Your task to perform on an android device: turn on notifications settings in the gmail app Image 0: 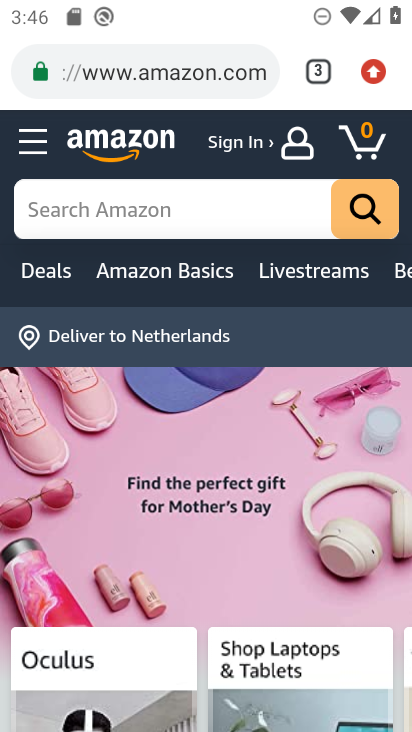
Step 0: press home button
Your task to perform on an android device: turn on notifications settings in the gmail app Image 1: 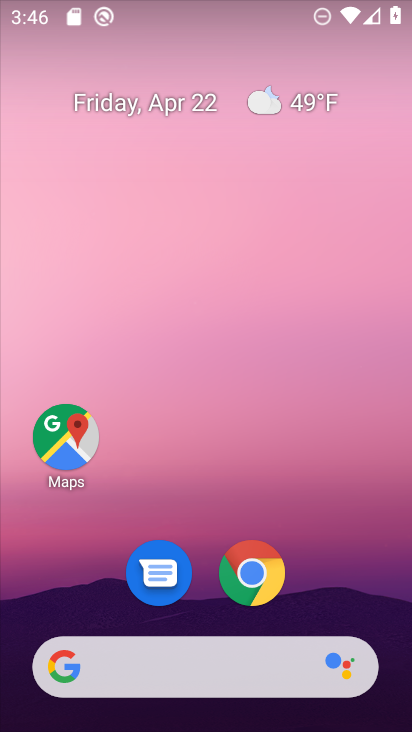
Step 1: drag from (331, 618) to (327, 126)
Your task to perform on an android device: turn on notifications settings in the gmail app Image 2: 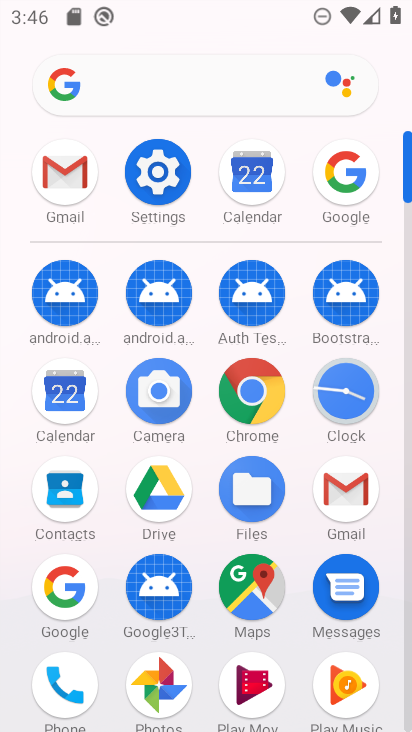
Step 2: click (63, 170)
Your task to perform on an android device: turn on notifications settings in the gmail app Image 3: 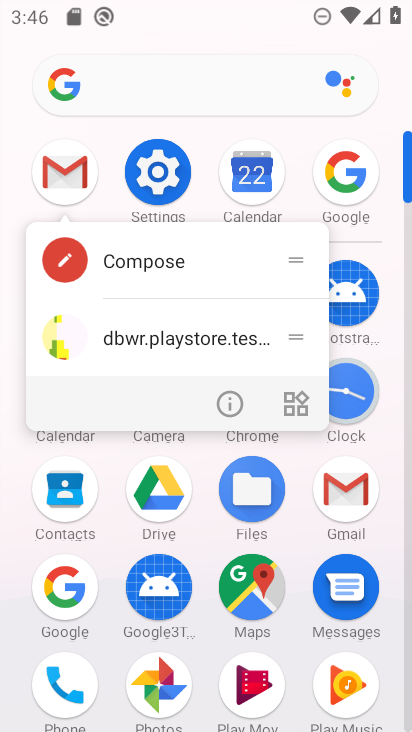
Step 3: click (73, 168)
Your task to perform on an android device: turn on notifications settings in the gmail app Image 4: 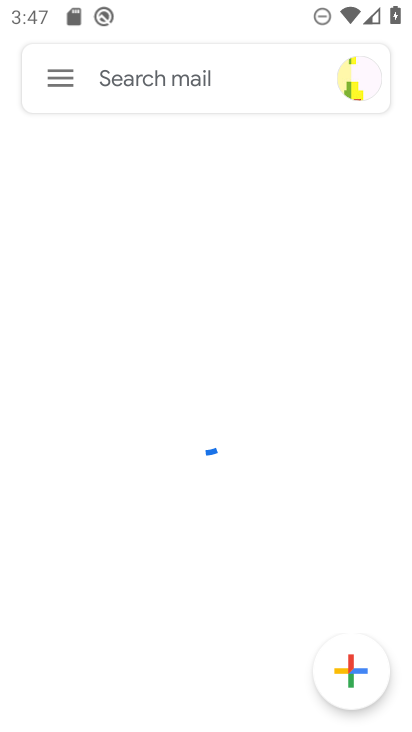
Step 4: click (49, 72)
Your task to perform on an android device: turn on notifications settings in the gmail app Image 5: 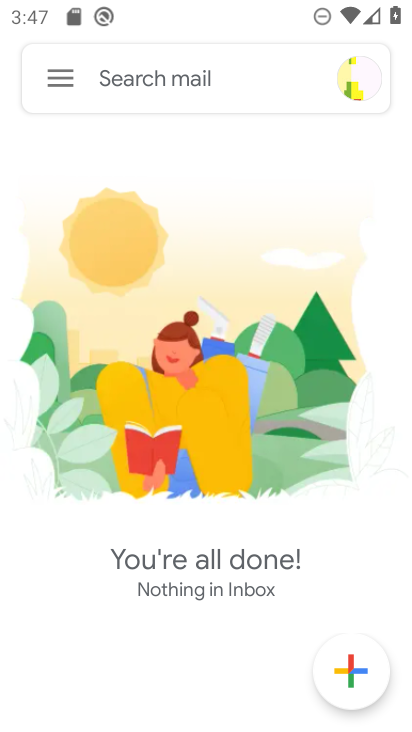
Step 5: click (63, 102)
Your task to perform on an android device: turn on notifications settings in the gmail app Image 6: 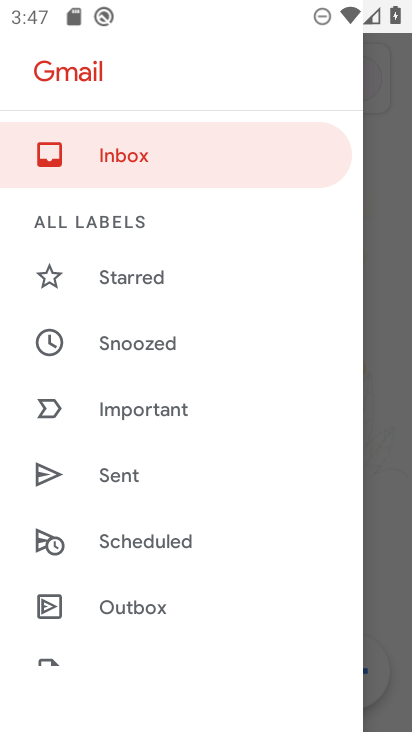
Step 6: drag from (159, 568) to (212, 188)
Your task to perform on an android device: turn on notifications settings in the gmail app Image 7: 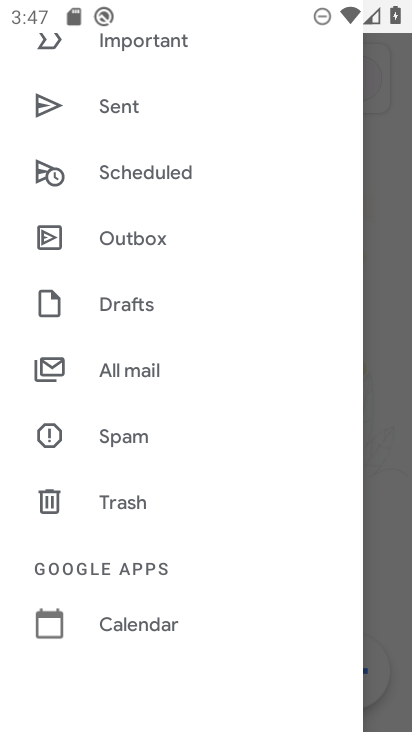
Step 7: drag from (225, 532) to (261, 200)
Your task to perform on an android device: turn on notifications settings in the gmail app Image 8: 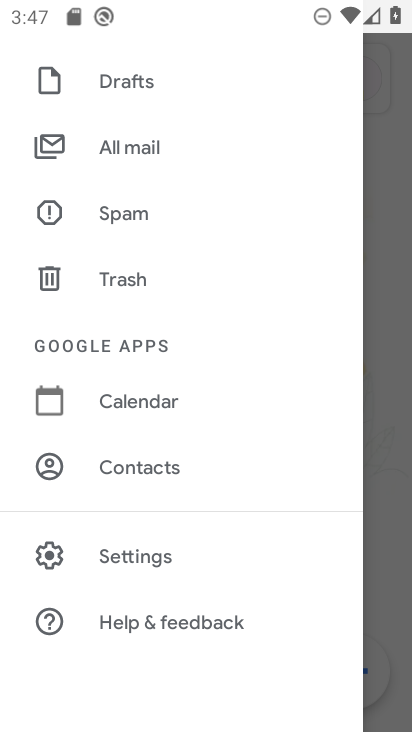
Step 8: click (190, 551)
Your task to perform on an android device: turn on notifications settings in the gmail app Image 9: 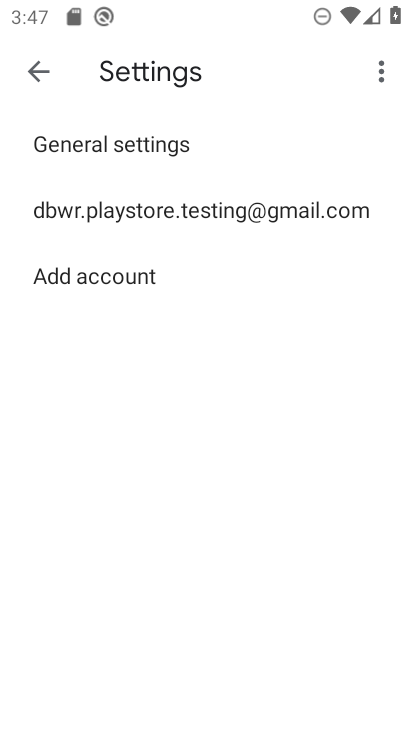
Step 9: click (192, 200)
Your task to perform on an android device: turn on notifications settings in the gmail app Image 10: 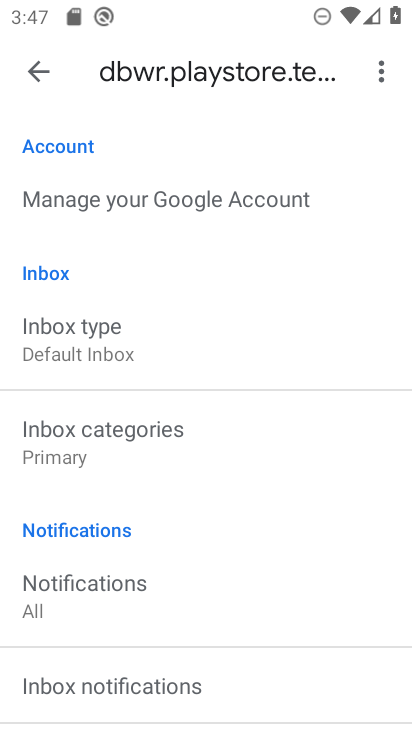
Step 10: click (161, 590)
Your task to perform on an android device: turn on notifications settings in the gmail app Image 11: 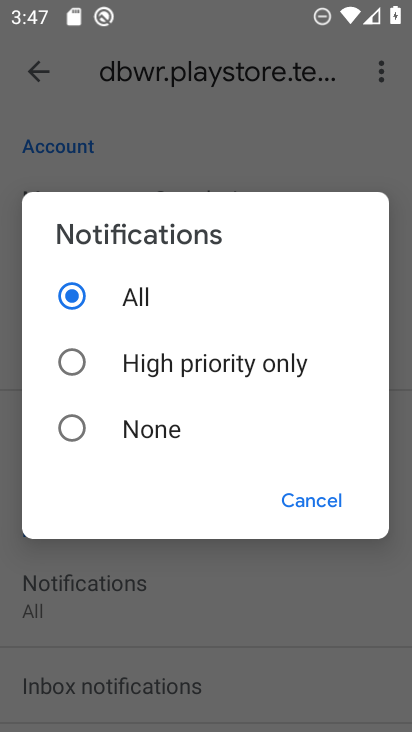
Step 11: task complete